Your task to perform on an android device: turn on the 24-hour format for clock Image 0: 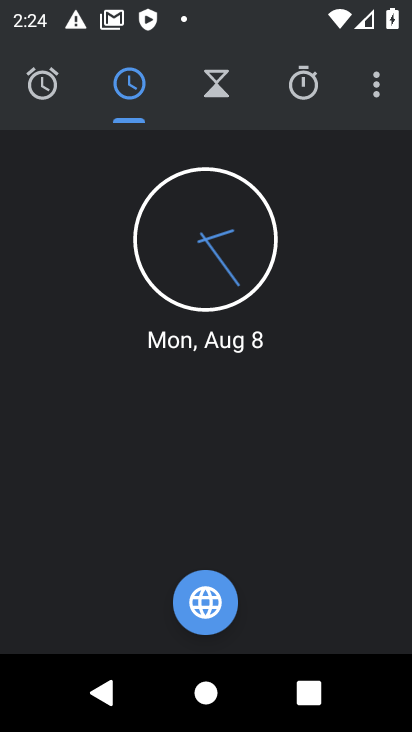
Step 0: press home button
Your task to perform on an android device: turn on the 24-hour format for clock Image 1: 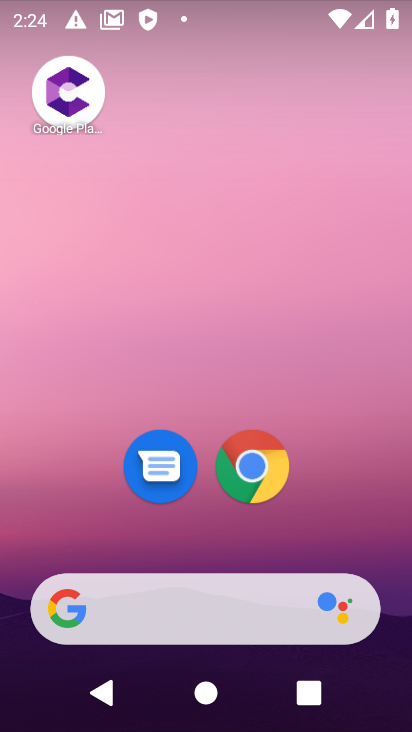
Step 1: drag from (214, 611) to (234, 11)
Your task to perform on an android device: turn on the 24-hour format for clock Image 2: 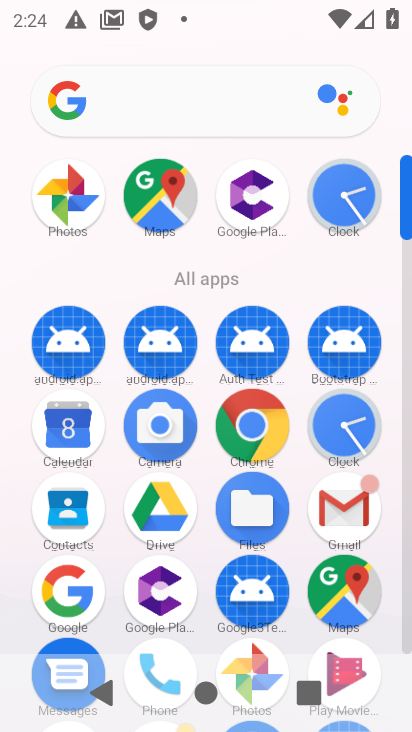
Step 2: drag from (217, 614) to (119, 9)
Your task to perform on an android device: turn on the 24-hour format for clock Image 3: 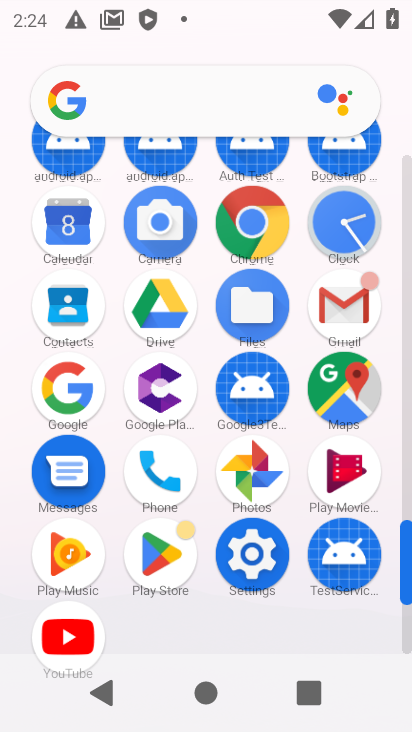
Step 3: click (241, 559)
Your task to perform on an android device: turn on the 24-hour format for clock Image 4: 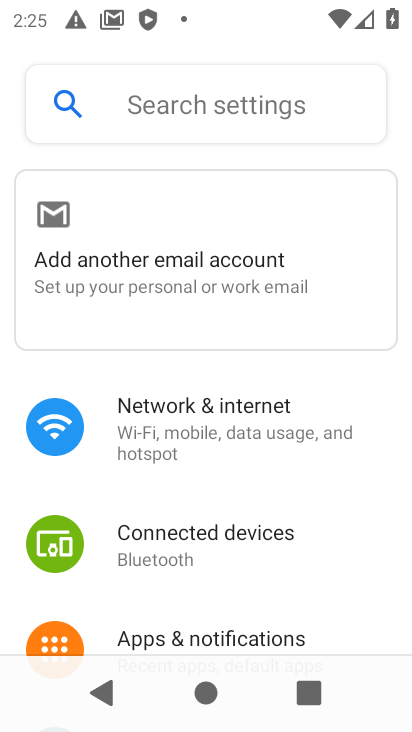
Step 4: drag from (275, 610) to (308, 34)
Your task to perform on an android device: turn on the 24-hour format for clock Image 5: 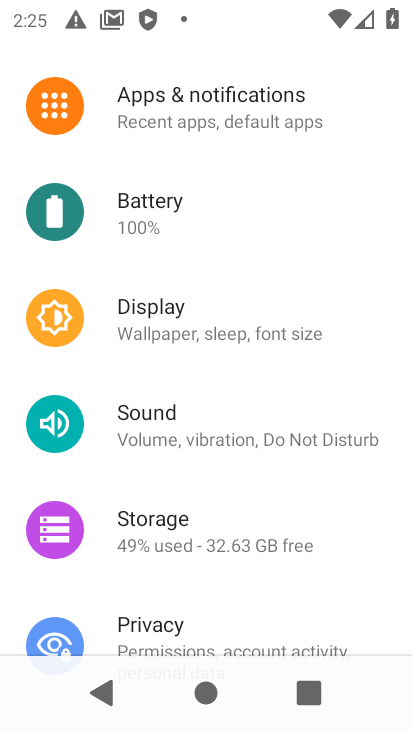
Step 5: drag from (291, 589) to (269, 0)
Your task to perform on an android device: turn on the 24-hour format for clock Image 6: 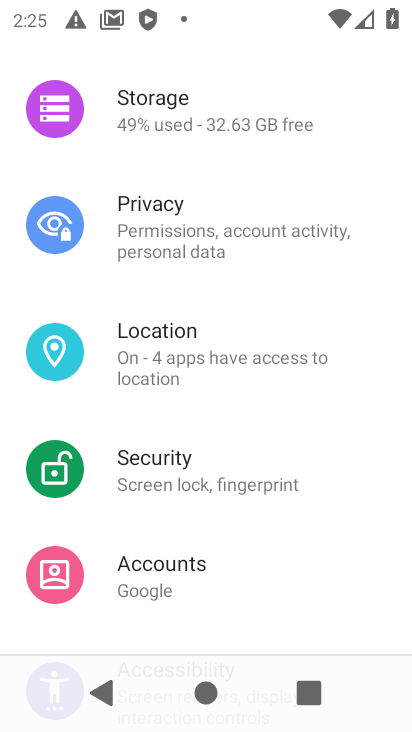
Step 6: drag from (263, 600) to (301, 44)
Your task to perform on an android device: turn on the 24-hour format for clock Image 7: 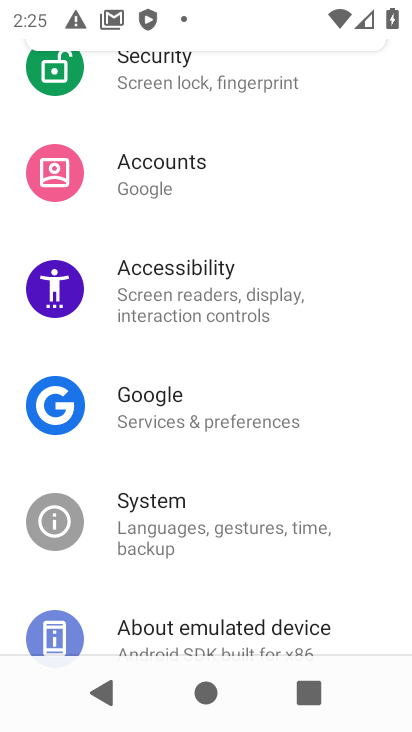
Step 7: click (221, 520)
Your task to perform on an android device: turn on the 24-hour format for clock Image 8: 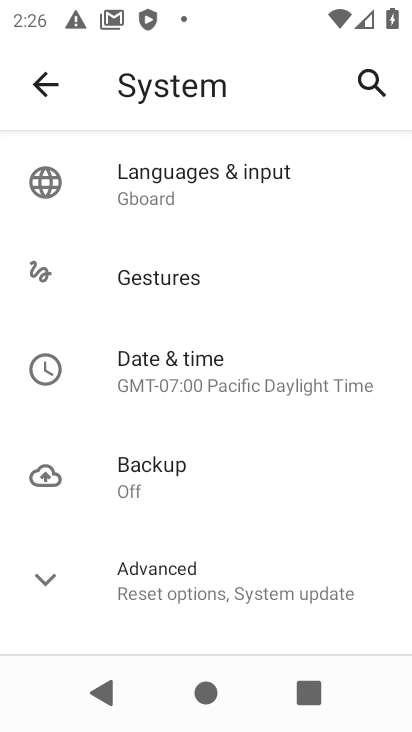
Step 8: click (220, 383)
Your task to perform on an android device: turn on the 24-hour format for clock Image 9: 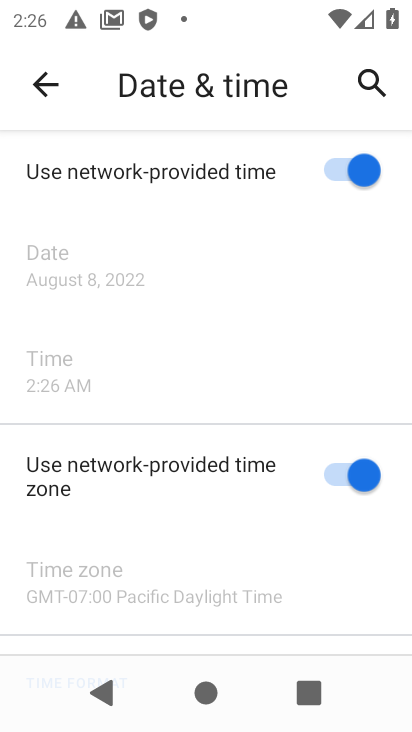
Step 9: drag from (296, 560) to (287, 150)
Your task to perform on an android device: turn on the 24-hour format for clock Image 10: 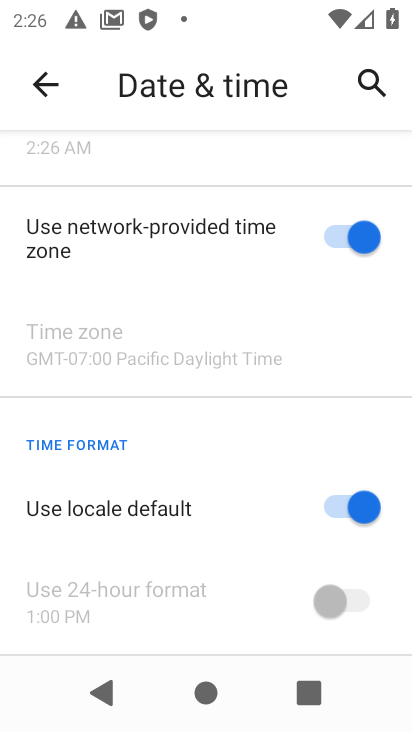
Step 10: click (351, 509)
Your task to perform on an android device: turn on the 24-hour format for clock Image 11: 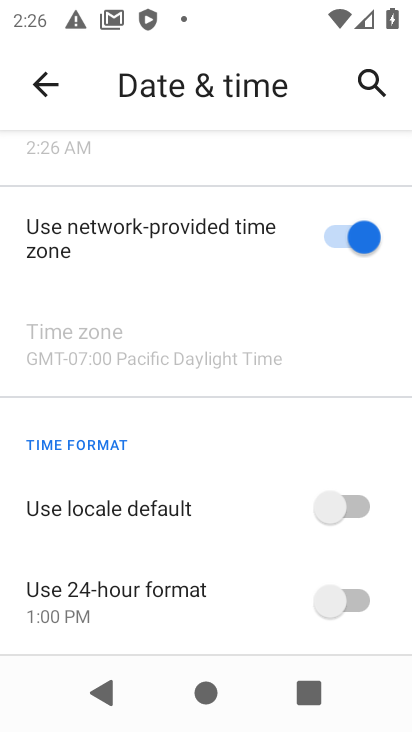
Step 11: click (357, 603)
Your task to perform on an android device: turn on the 24-hour format for clock Image 12: 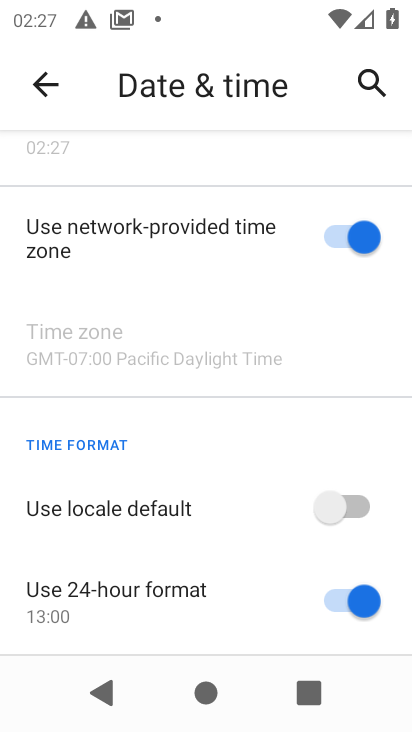
Step 12: task complete